Your task to perform on an android device: read, delete, or share a saved page in the chrome app Image 0: 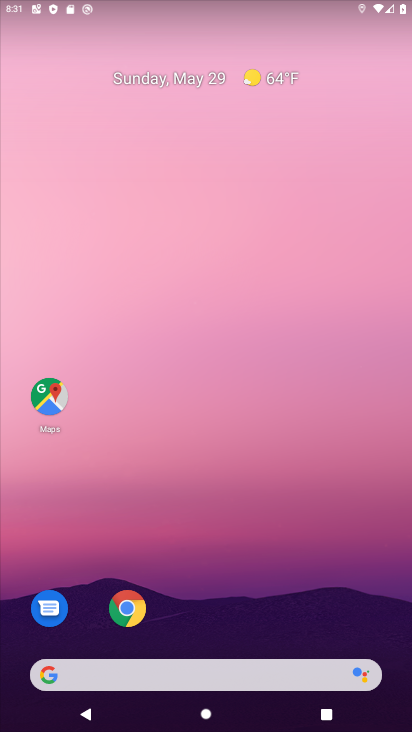
Step 0: click (130, 607)
Your task to perform on an android device: read, delete, or share a saved page in the chrome app Image 1: 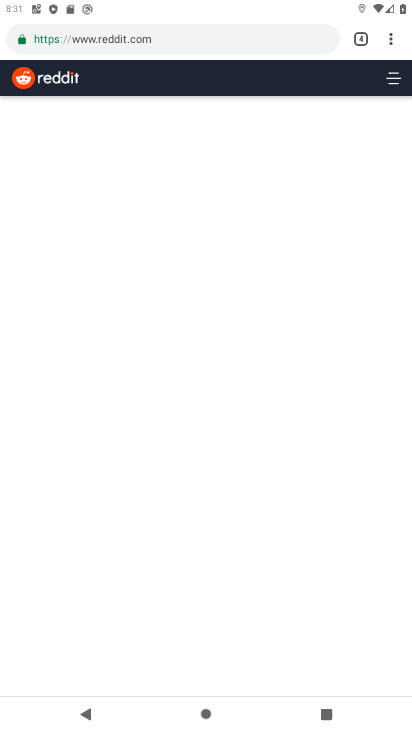
Step 1: click (386, 37)
Your task to perform on an android device: read, delete, or share a saved page in the chrome app Image 2: 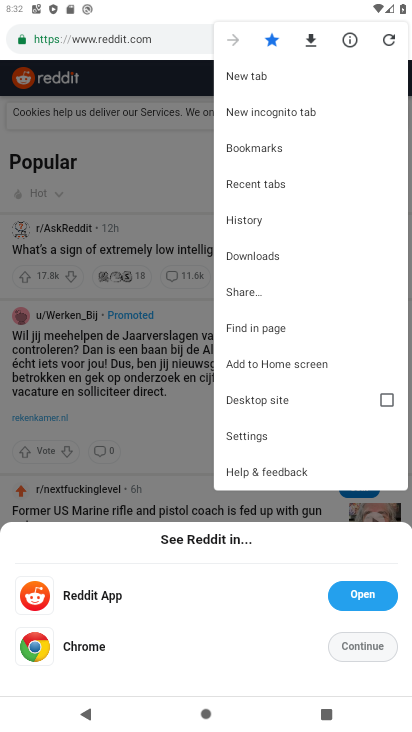
Step 2: click (257, 257)
Your task to perform on an android device: read, delete, or share a saved page in the chrome app Image 3: 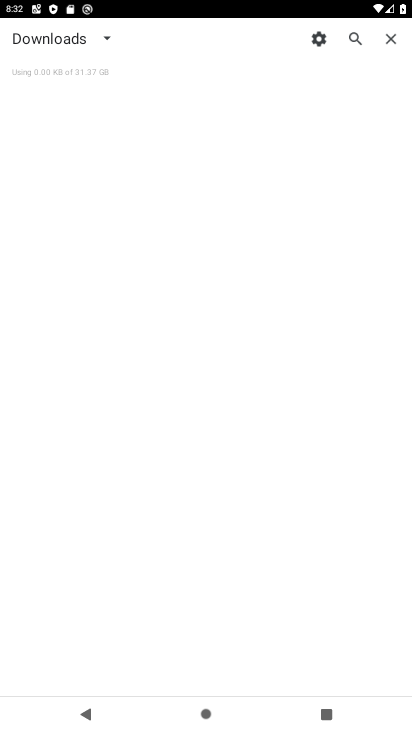
Step 3: click (243, 117)
Your task to perform on an android device: read, delete, or share a saved page in the chrome app Image 4: 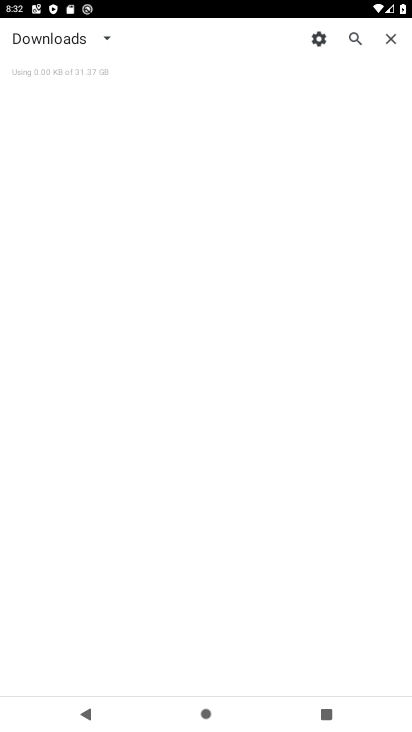
Step 4: task complete